Your task to perform on an android device: turn on airplane mode Image 0: 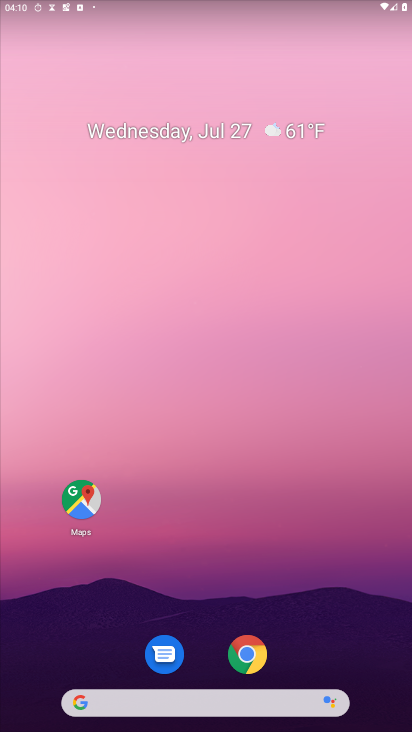
Step 0: drag from (121, 600) to (127, 60)
Your task to perform on an android device: turn on airplane mode Image 1: 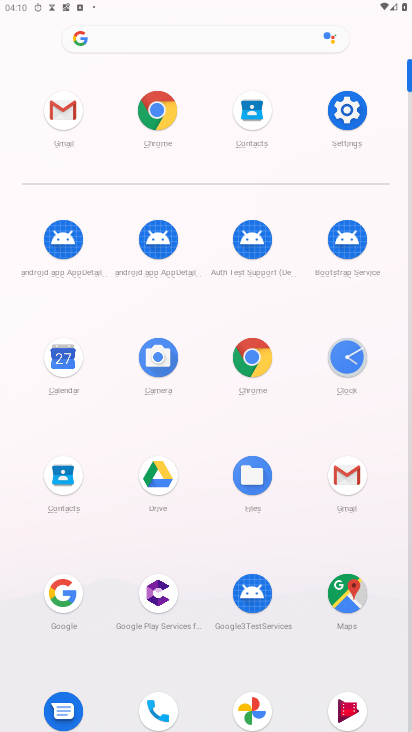
Step 1: click (341, 100)
Your task to perform on an android device: turn on airplane mode Image 2: 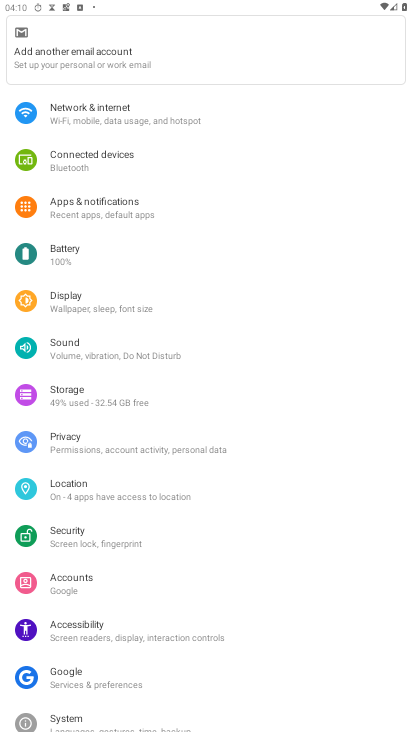
Step 2: click (137, 110)
Your task to perform on an android device: turn on airplane mode Image 3: 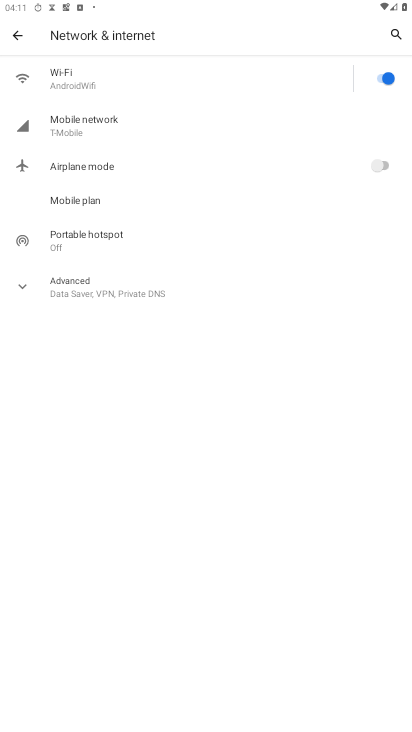
Step 3: click (386, 162)
Your task to perform on an android device: turn on airplane mode Image 4: 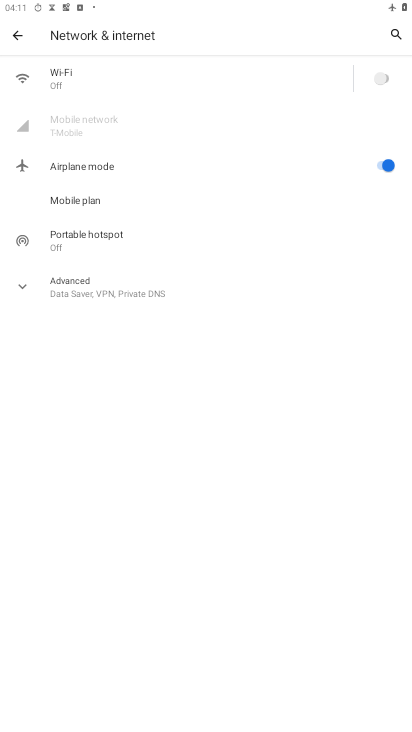
Step 4: task complete